Your task to perform on an android device: Search for flights from Mexico city to Boston Image 0: 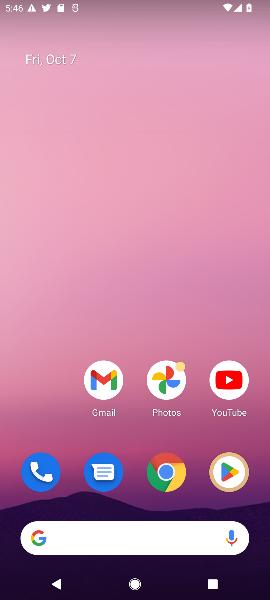
Step 0: click (161, 471)
Your task to perform on an android device: Search for flights from Mexico city to Boston Image 1: 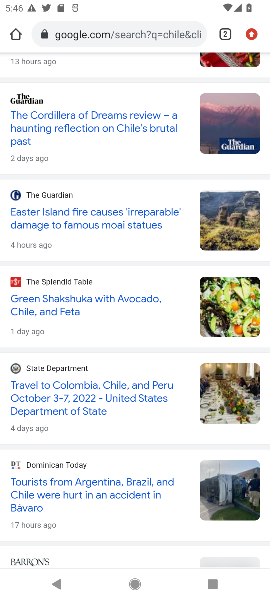
Step 1: click (124, 38)
Your task to perform on an android device: Search for flights from Mexico city to Boston Image 2: 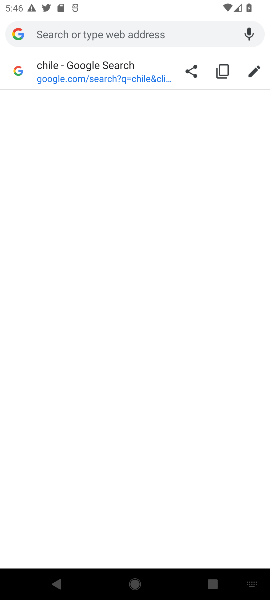
Step 2: type "flights from Mexico city to Boston"
Your task to perform on an android device: Search for flights from Mexico city to Boston Image 3: 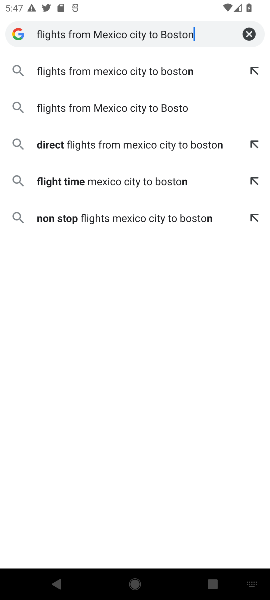
Step 3: press enter
Your task to perform on an android device: Search for flights from Mexico city to Boston Image 4: 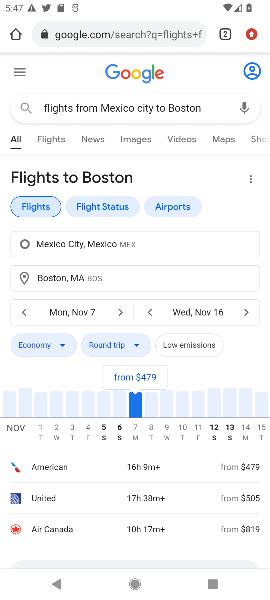
Step 4: drag from (159, 460) to (168, 340)
Your task to perform on an android device: Search for flights from Mexico city to Boston Image 5: 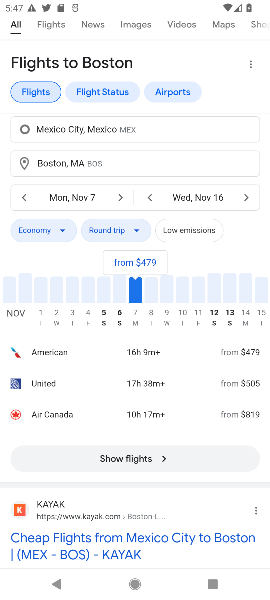
Step 5: click (134, 460)
Your task to perform on an android device: Search for flights from Mexico city to Boston Image 6: 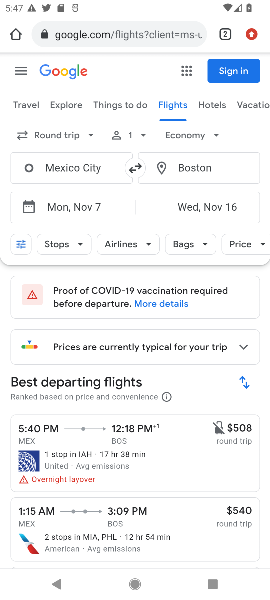
Step 6: task complete